Your task to perform on an android device: Go to Amazon Image 0: 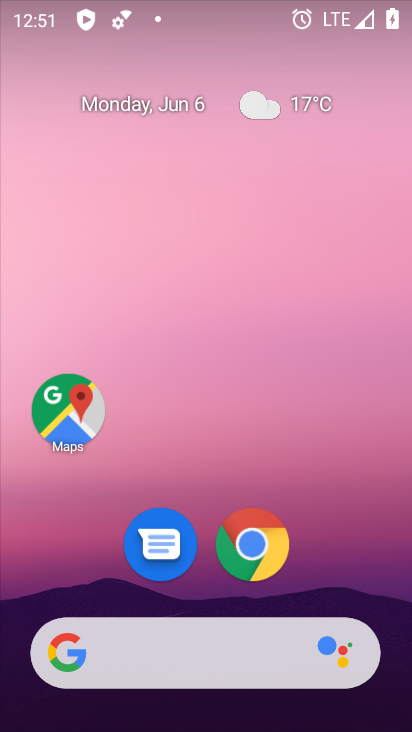
Step 0: click (270, 550)
Your task to perform on an android device: Go to Amazon Image 1: 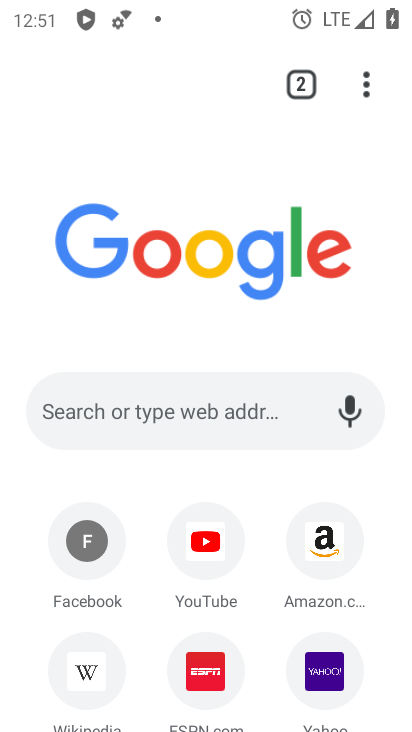
Step 1: click (333, 577)
Your task to perform on an android device: Go to Amazon Image 2: 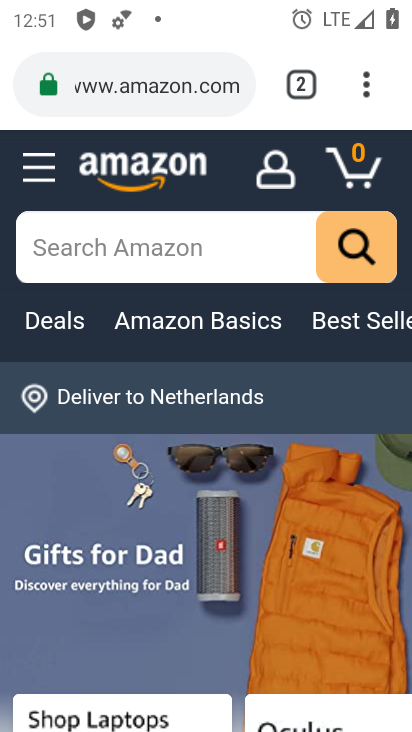
Step 2: task complete